Your task to perform on an android device: Show me the alarms in the clock app Image 0: 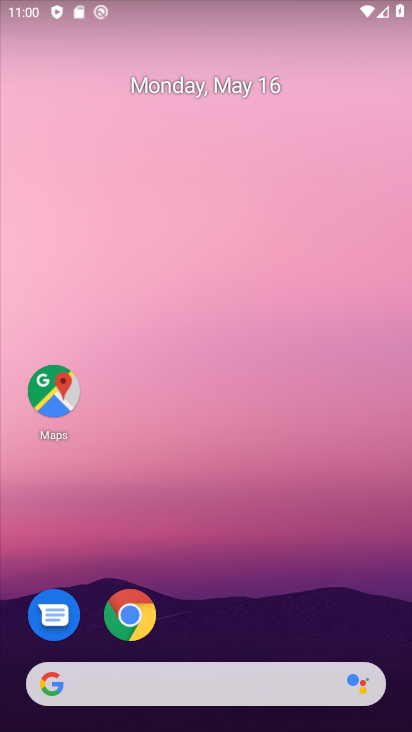
Step 0: drag from (279, 613) to (288, 74)
Your task to perform on an android device: Show me the alarms in the clock app Image 1: 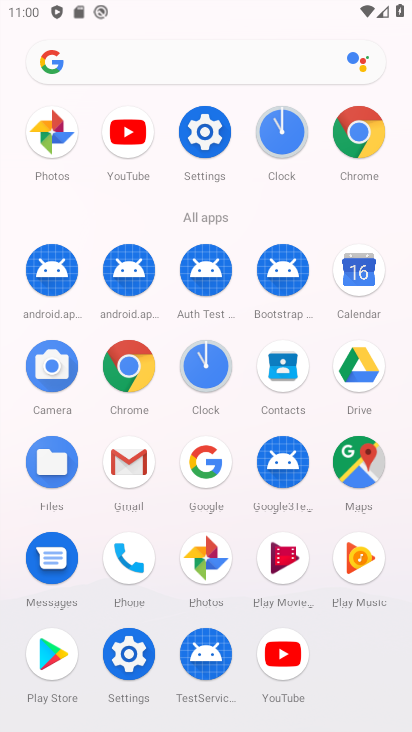
Step 1: click (278, 126)
Your task to perform on an android device: Show me the alarms in the clock app Image 2: 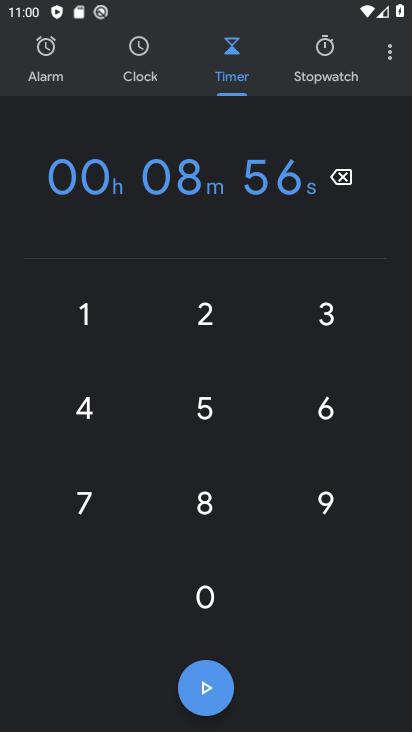
Step 2: click (48, 65)
Your task to perform on an android device: Show me the alarms in the clock app Image 3: 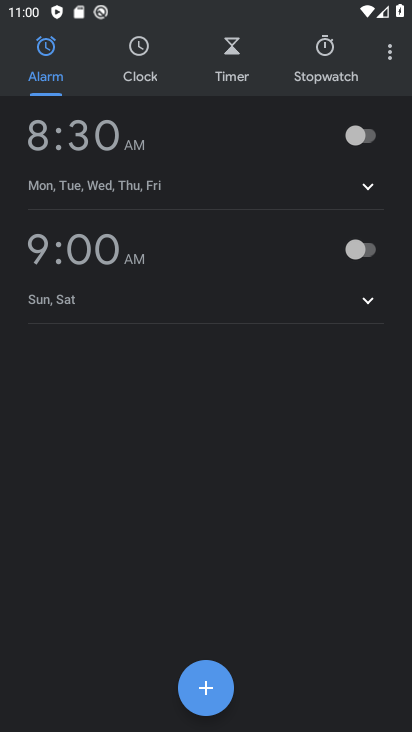
Step 3: task complete